Your task to perform on an android device: change notifications settings Image 0: 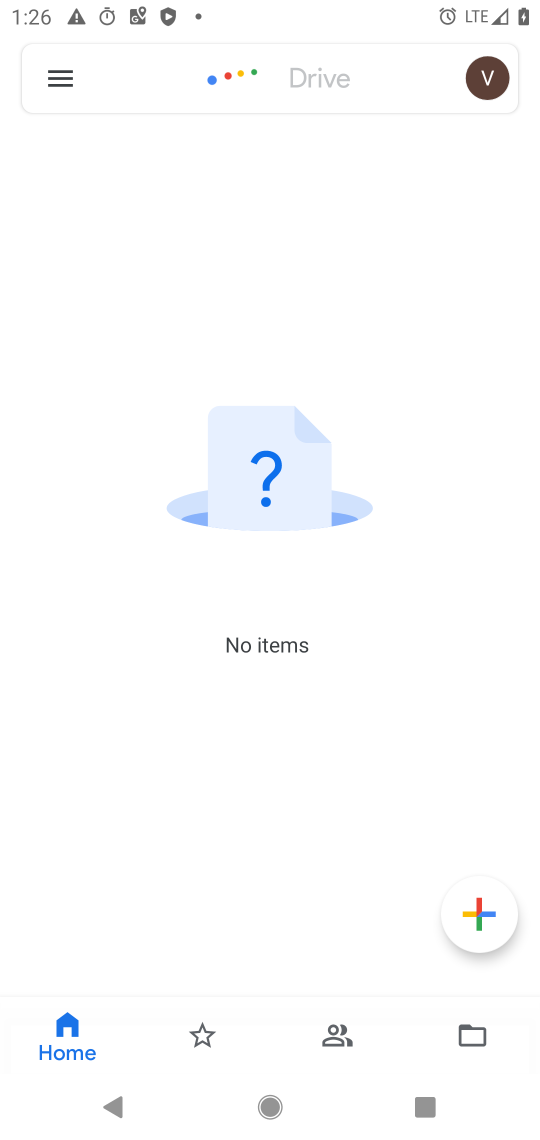
Step 0: drag from (298, 985) to (266, 119)
Your task to perform on an android device: change notifications settings Image 1: 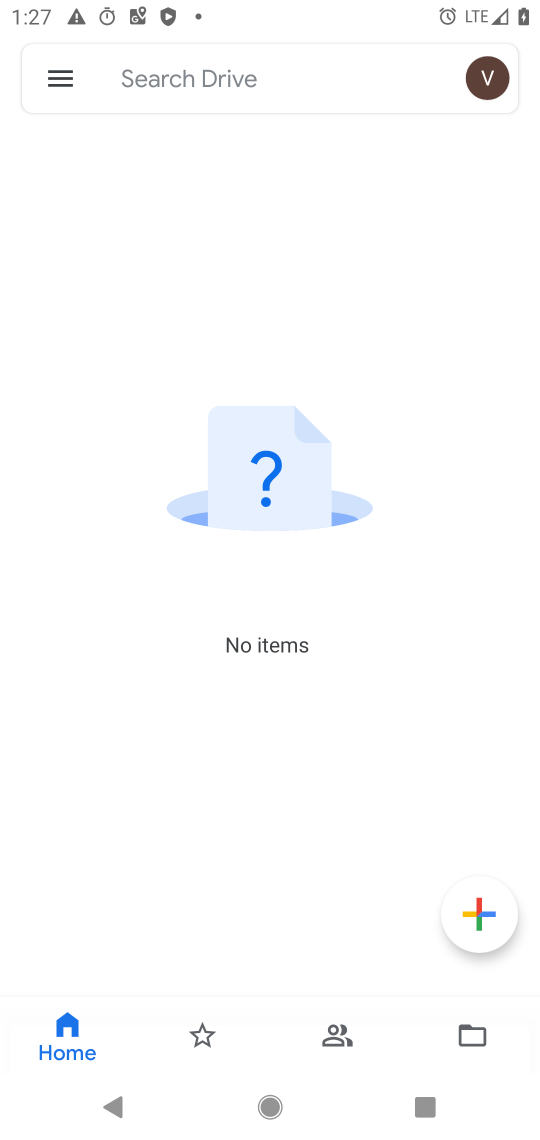
Step 1: press home button
Your task to perform on an android device: change notifications settings Image 2: 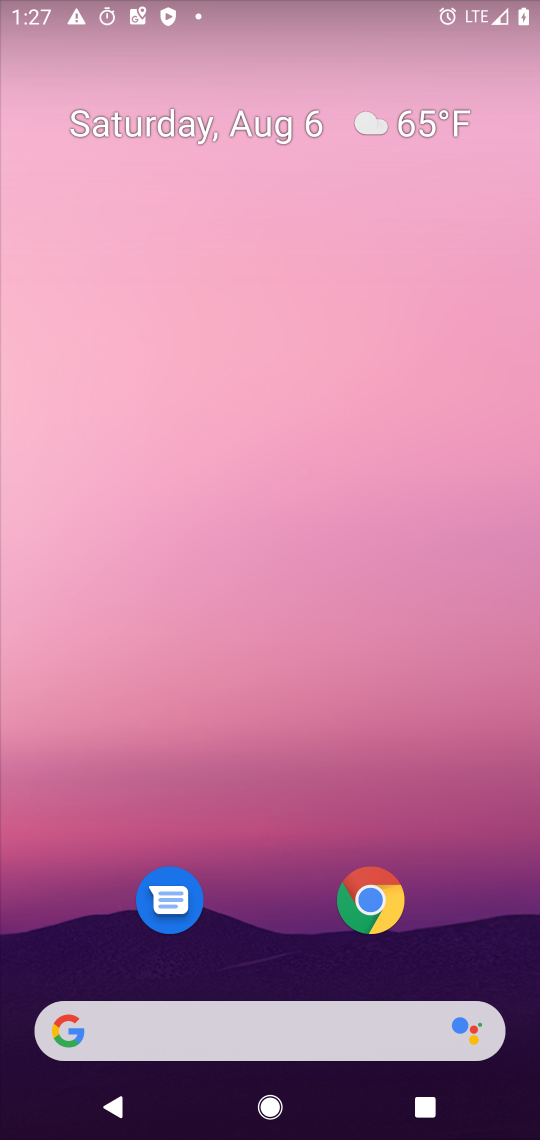
Step 2: drag from (275, 928) to (274, 95)
Your task to perform on an android device: change notifications settings Image 3: 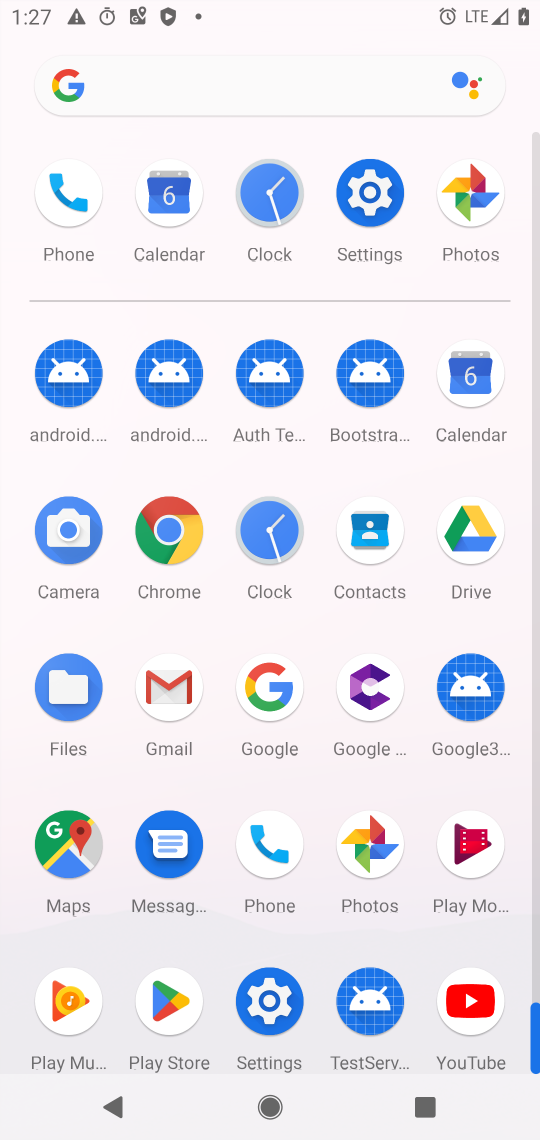
Step 3: click (375, 198)
Your task to perform on an android device: change notifications settings Image 4: 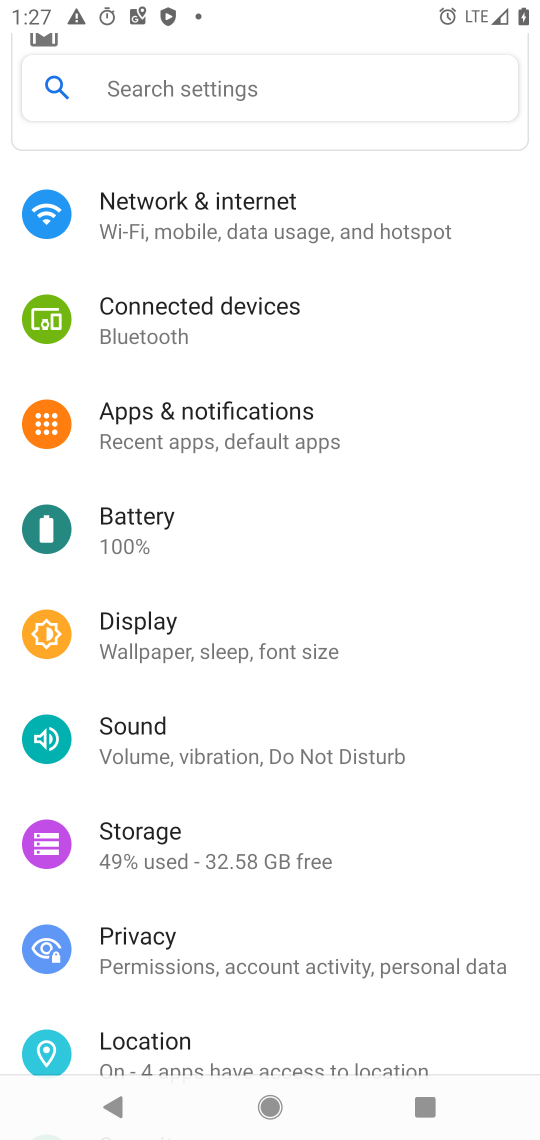
Step 4: click (185, 430)
Your task to perform on an android device: change notifications settings Image 5: 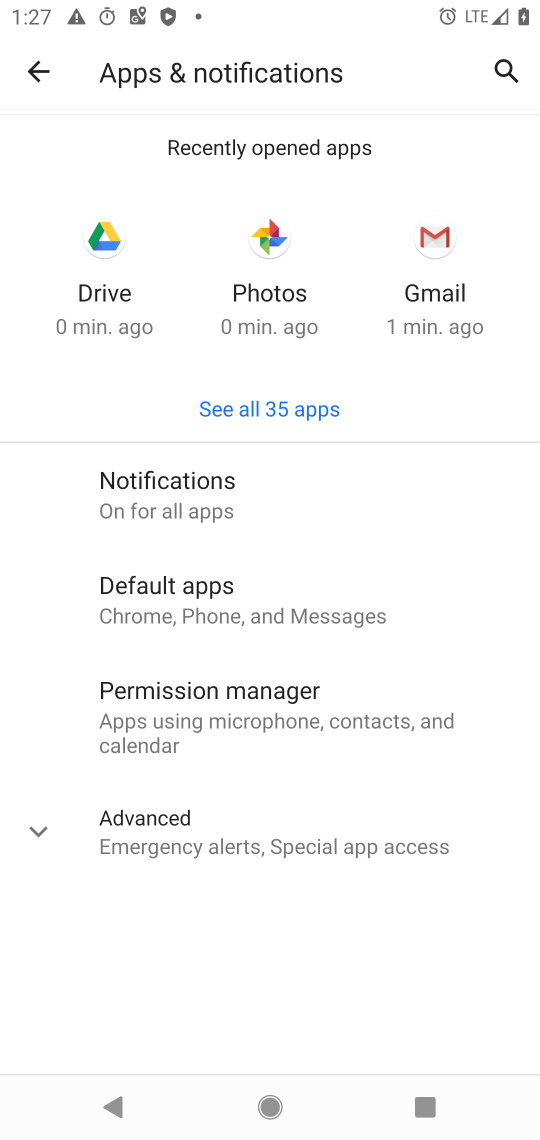
Step 5: click (144, 495)
Your task to perform on an android device: change notifications settings Image 6: 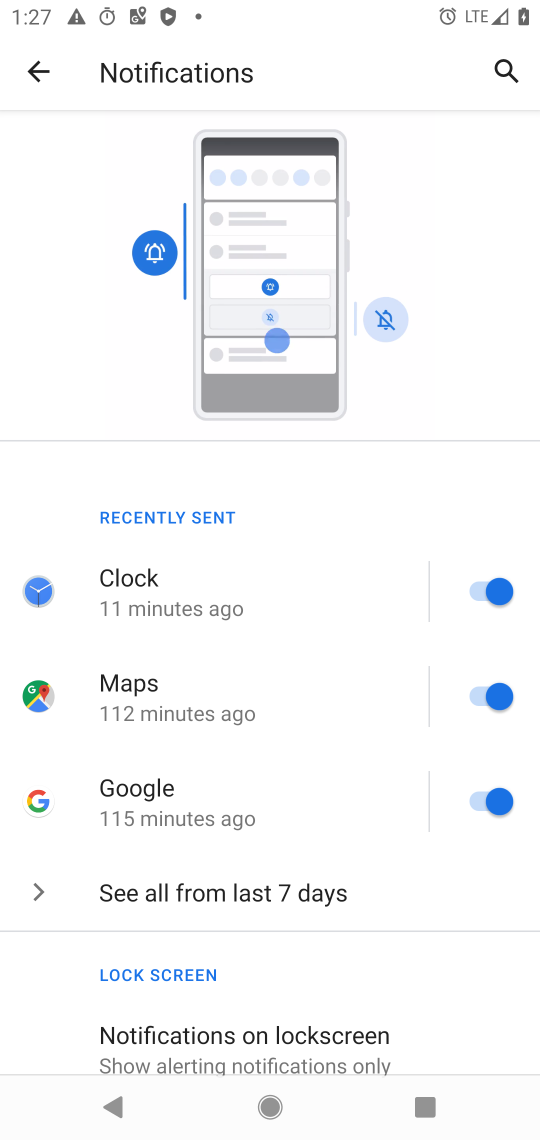
Step 6: task complete